Your task to perform on an android device: Open location settings Image 0: 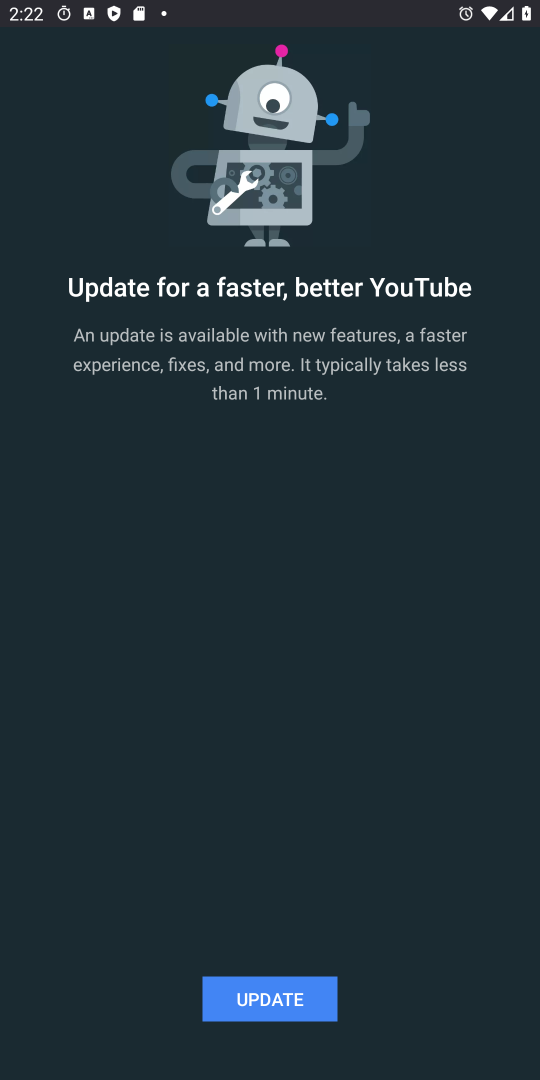
Step 0: press home button
Your task to perform on an android device: Open location settings Image 1: 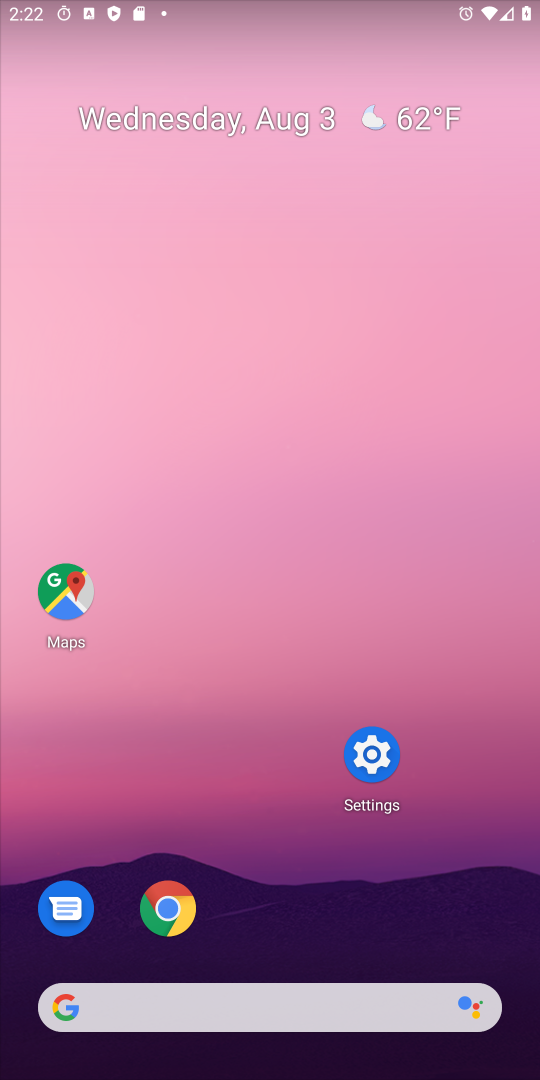
Step 1: drag from (326, 827) to (333, 166)
Your task to perform on an android device: Open location settings Image 2: 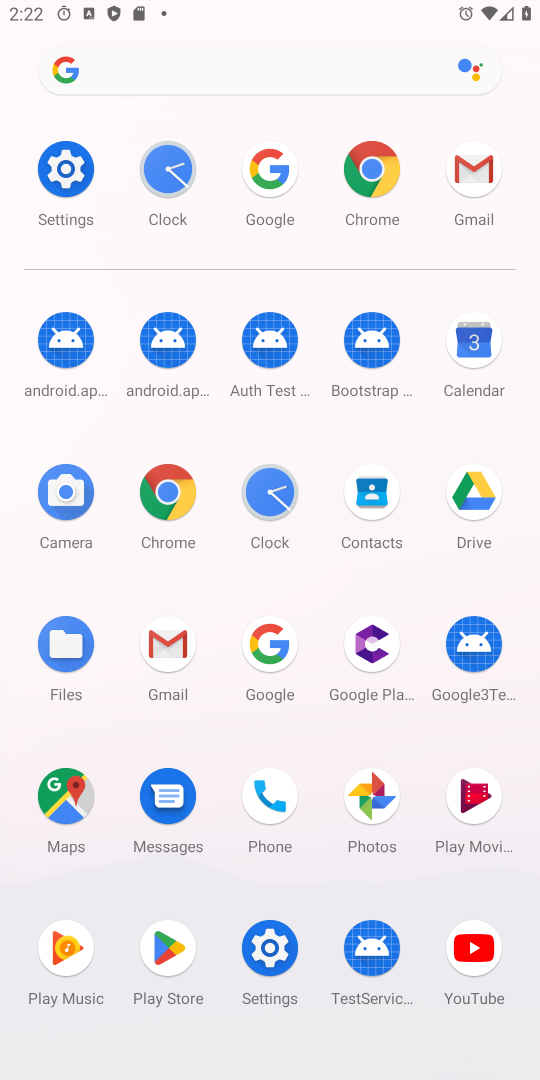
Step 2: click (278, 941)
Your task to perform on an android device: Open location settings Image 3: 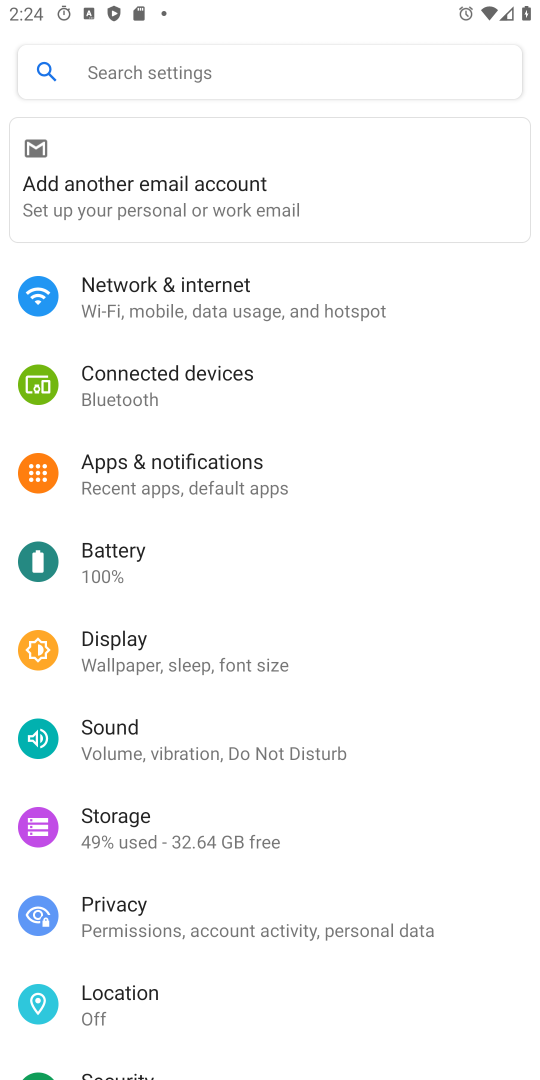
Step 3: click (197, 986)
Your task to perform on an android device: Open location settings Image 4: 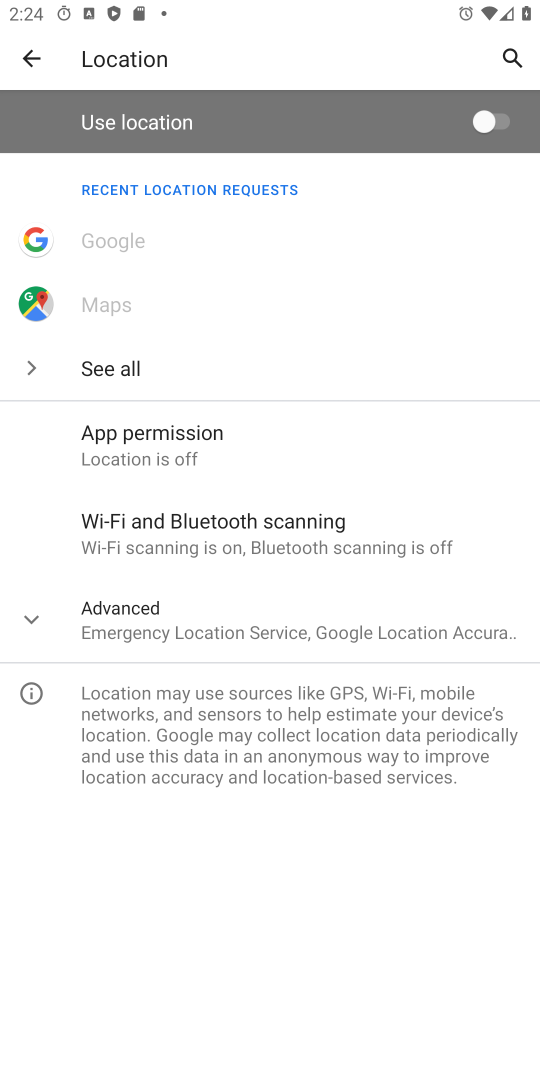
Step 4: task complete